Your task to perform on an android device: change the clock display to show seconds Image 0: 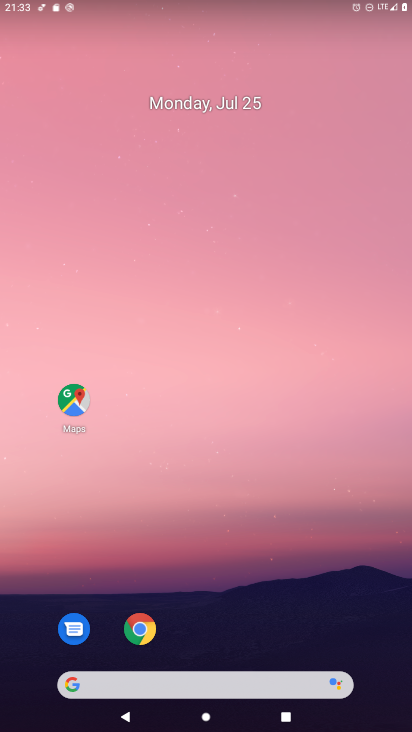
Step 0: drag from (212, 679) to (247, 47)
Your task to perform on an android device: change the clock display to show seconds Image 1: 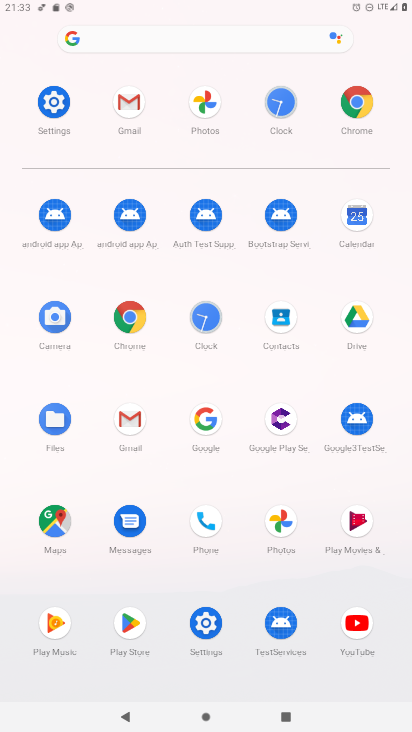
Step 1: click (281, 101)
Your task to perform on an android device: change the clock display to show seconds Image 2: 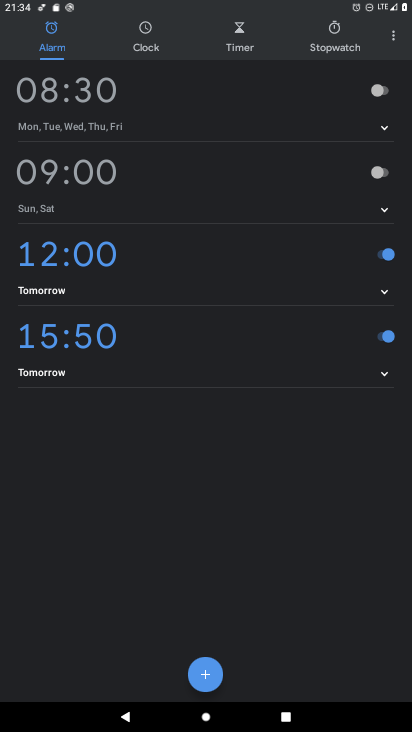
Step 2: click (394, 36)
Your task to perform on an android device: change the clock display to show seconds Image 3: 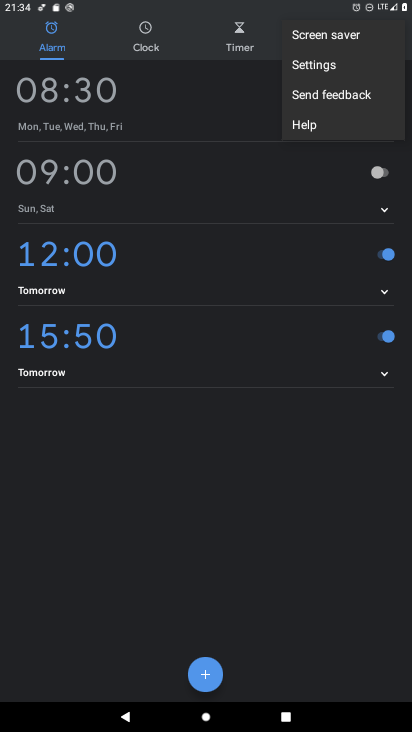
Step 3: click (333, 68)
Your task to perform on an android device: change the clock display to show seconds Image 4: 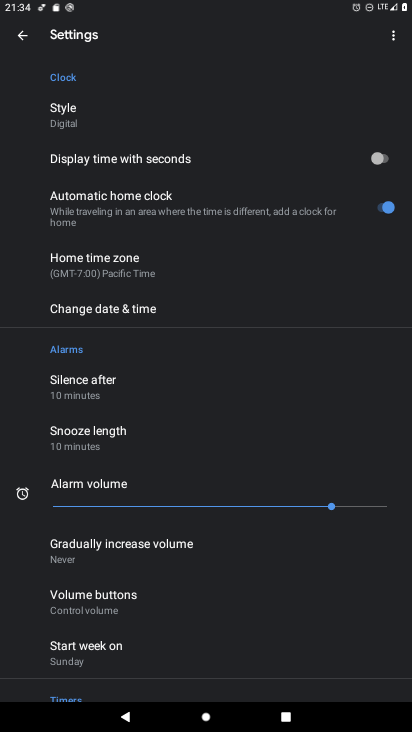
Step 4: click (383, 161)
Your task to perform on an android device: change the clock display to show seconds Image 5: 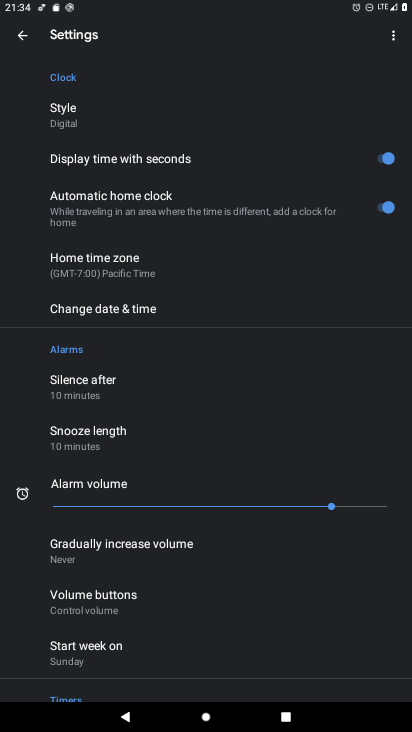
Step 5: task complete